Your task to perform on an android device: all mails in gmail Image 0: 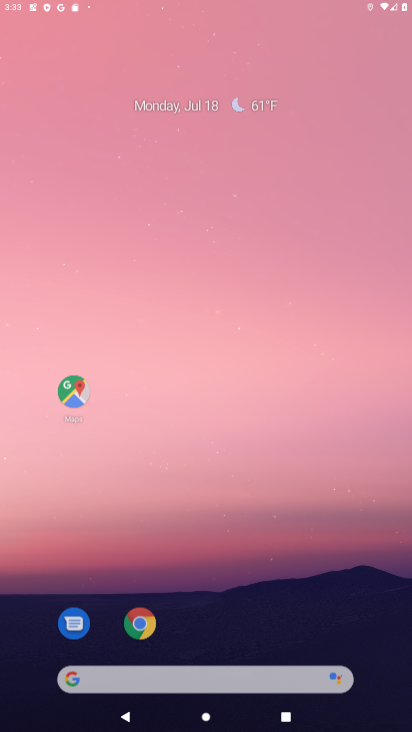
Step 0: click (214, 292)
Your task to perform on an android device: all mails in gmail Image 1: 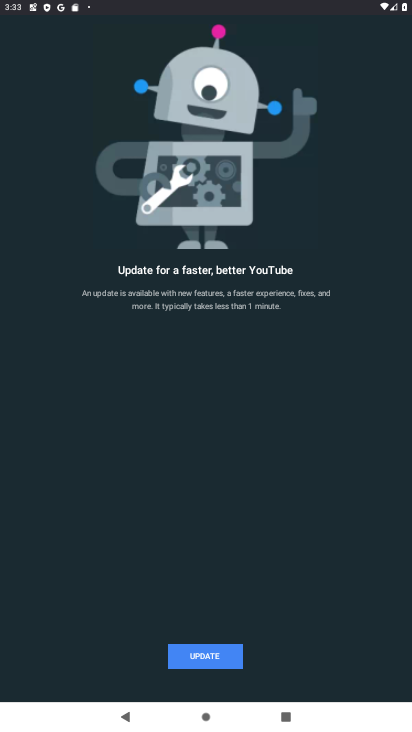
Step 1: press home button
Your task to perform on an android device: all mails in gmail Image 2: 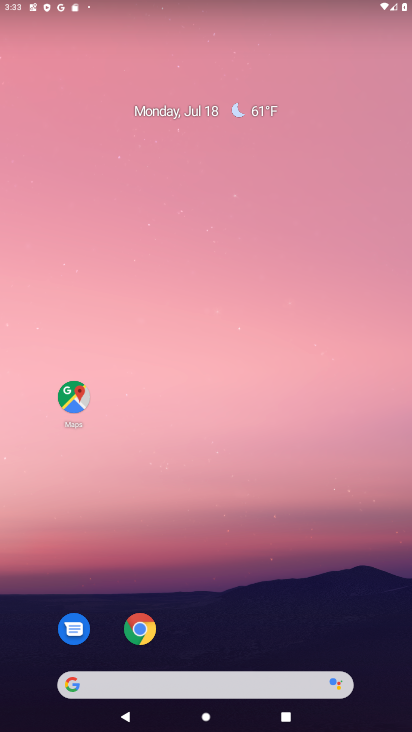
Step 2: drag from (191, 670) to (222, 158)
Your task to perform on an android device: all mails in gmail Image 3: 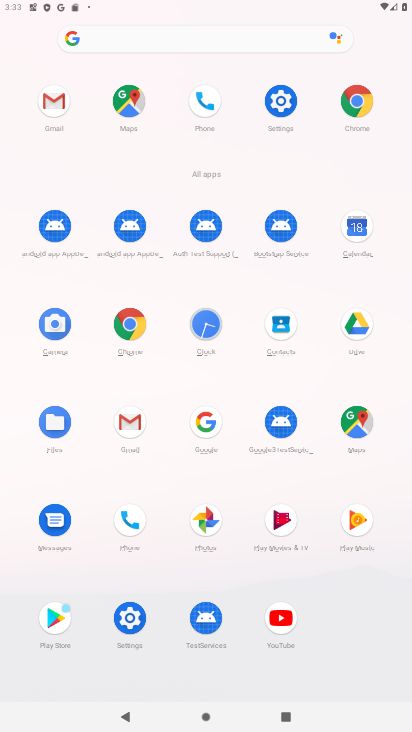
Step 3: click (133, 427)
Your task to perform on an android device: all mails in gmail Image 4: 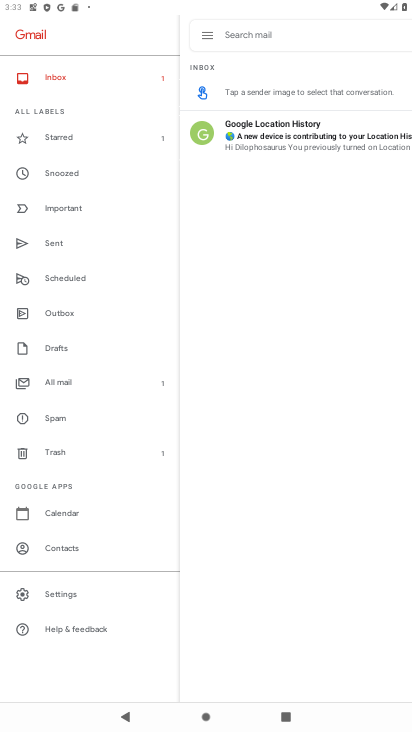
Step 4: click (68, 384)
Your task to perform on an android device: all mails in gmail Image 5: 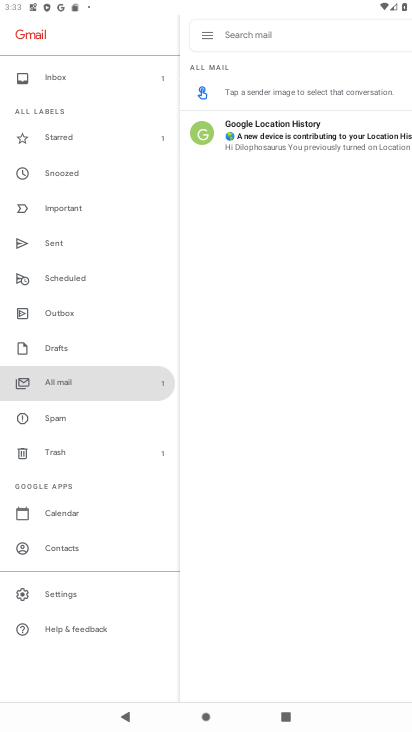
Step 5: task complete